Your task to perform on an android device: Play the last video I watched on Youtube Image 0: 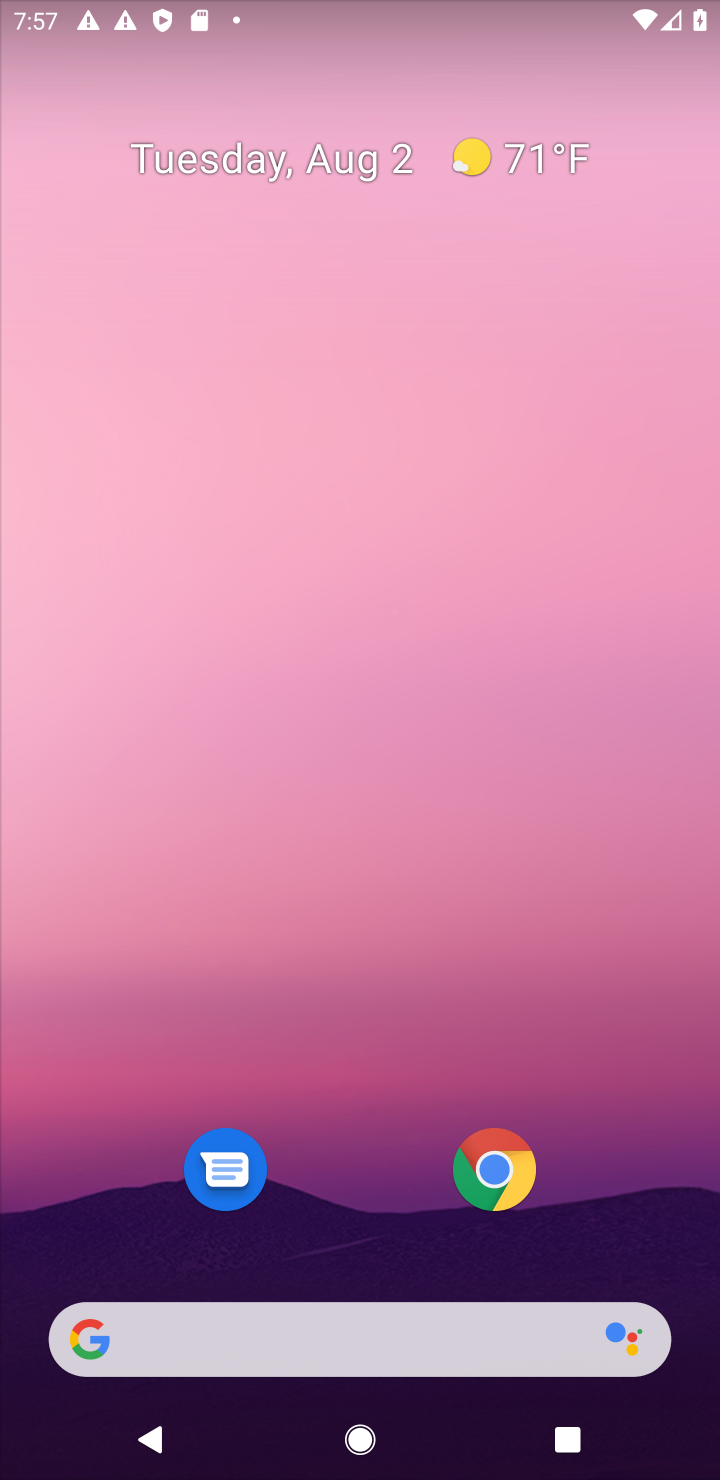
Step 0: drag from (333, 1122) to (414, 167)
Your task to perform on an android device: Play the last video I watched on Youtube Image 1: 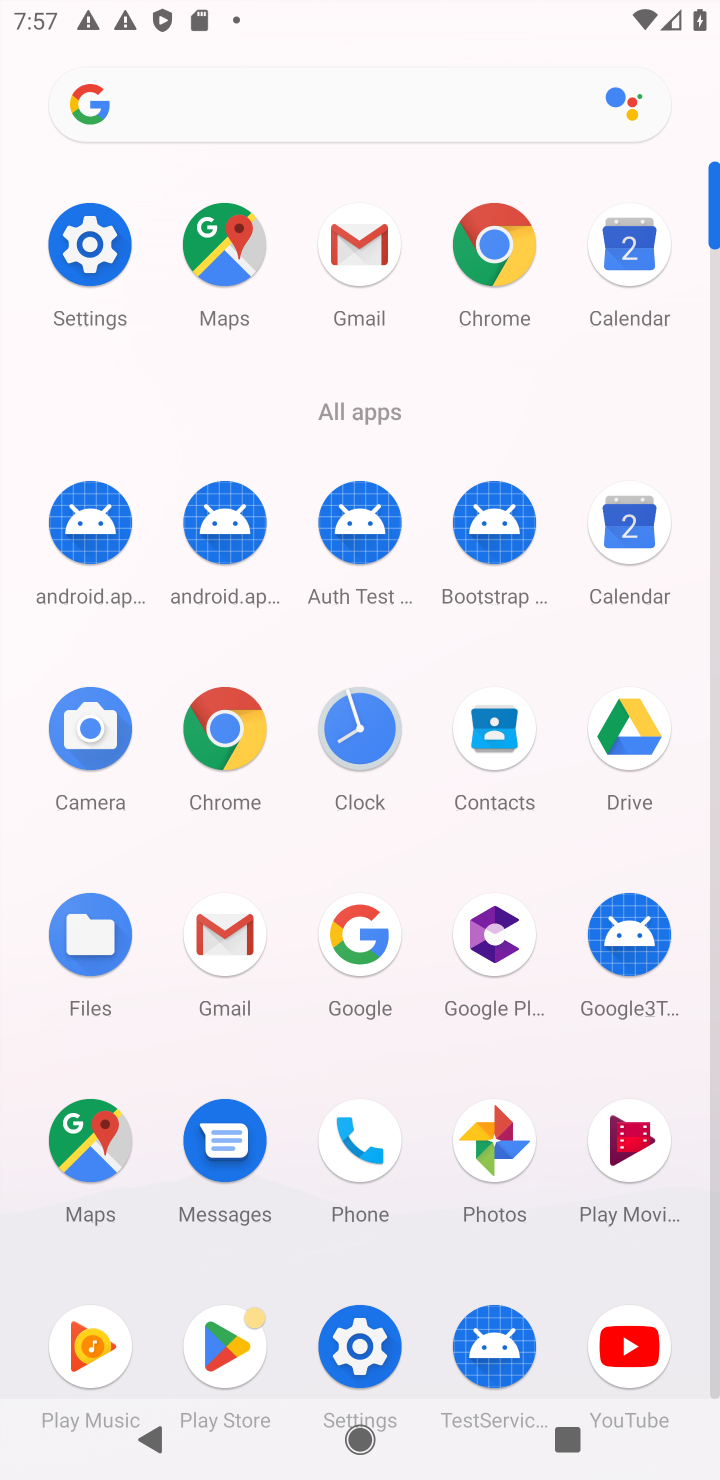
Step 1: click (630, 1344)
Your task to perform on an android device: Play the last video I watched on Youtube Image 2: 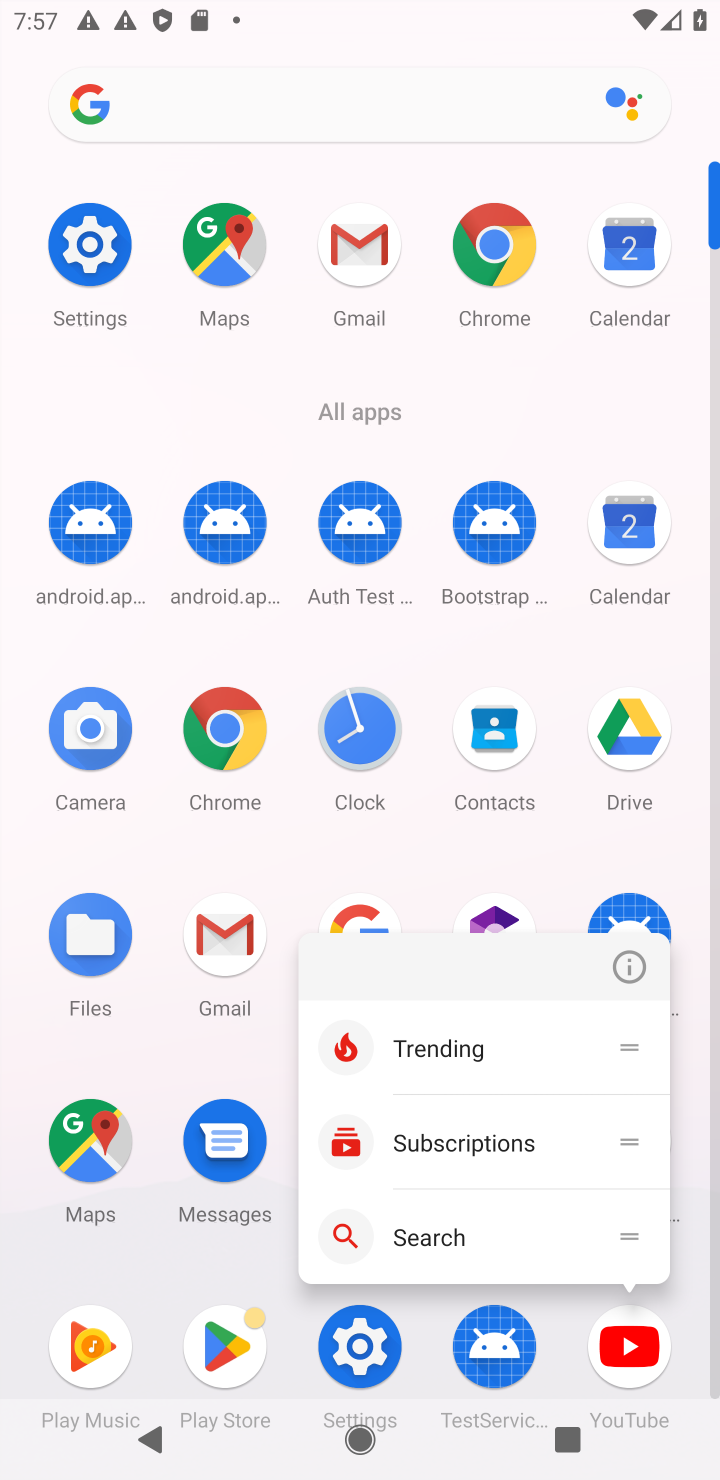
Step 2: click (630, 1344)
Your task to perform on an android device: Play the last video I watched on Youtube Image 3: 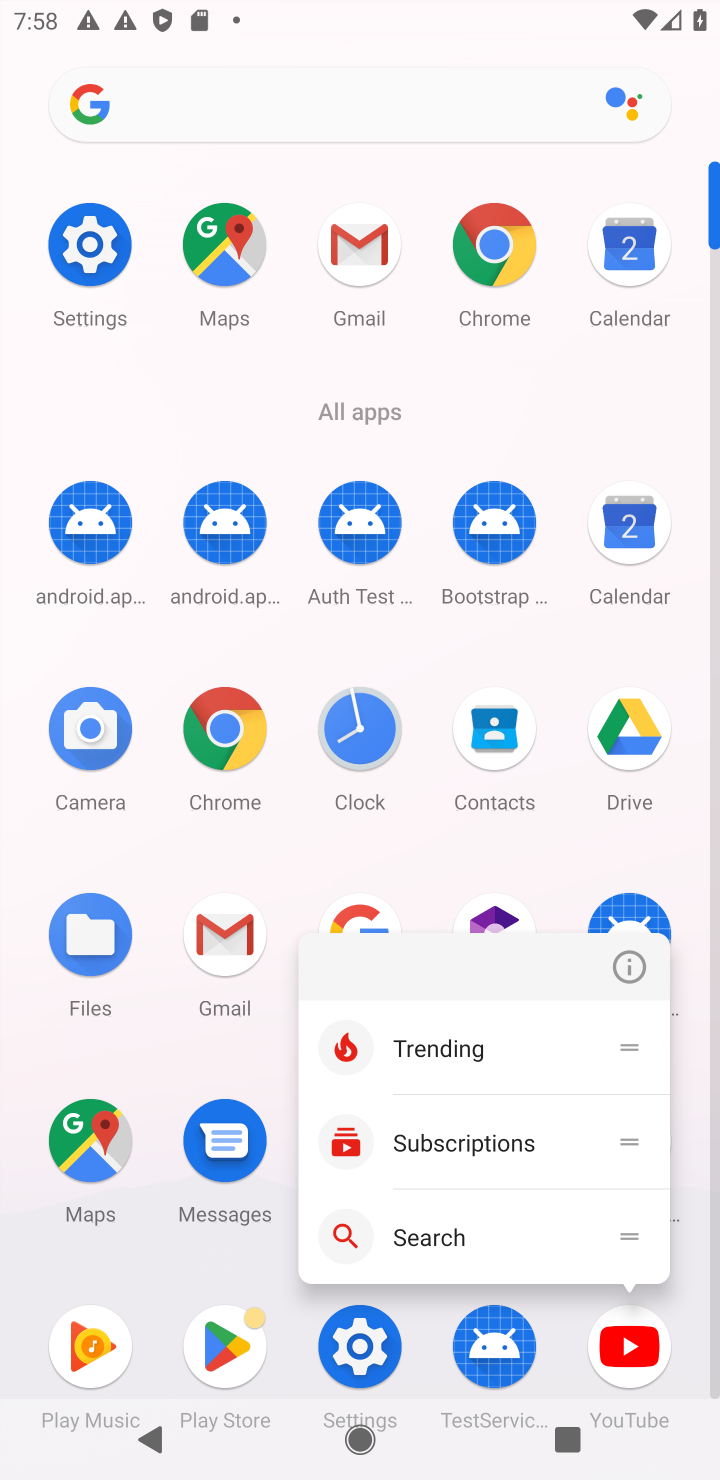
Step 3: click (633, 1347)
Your task to perform on an android device: Play the last video I watched on Youtube Image 4: 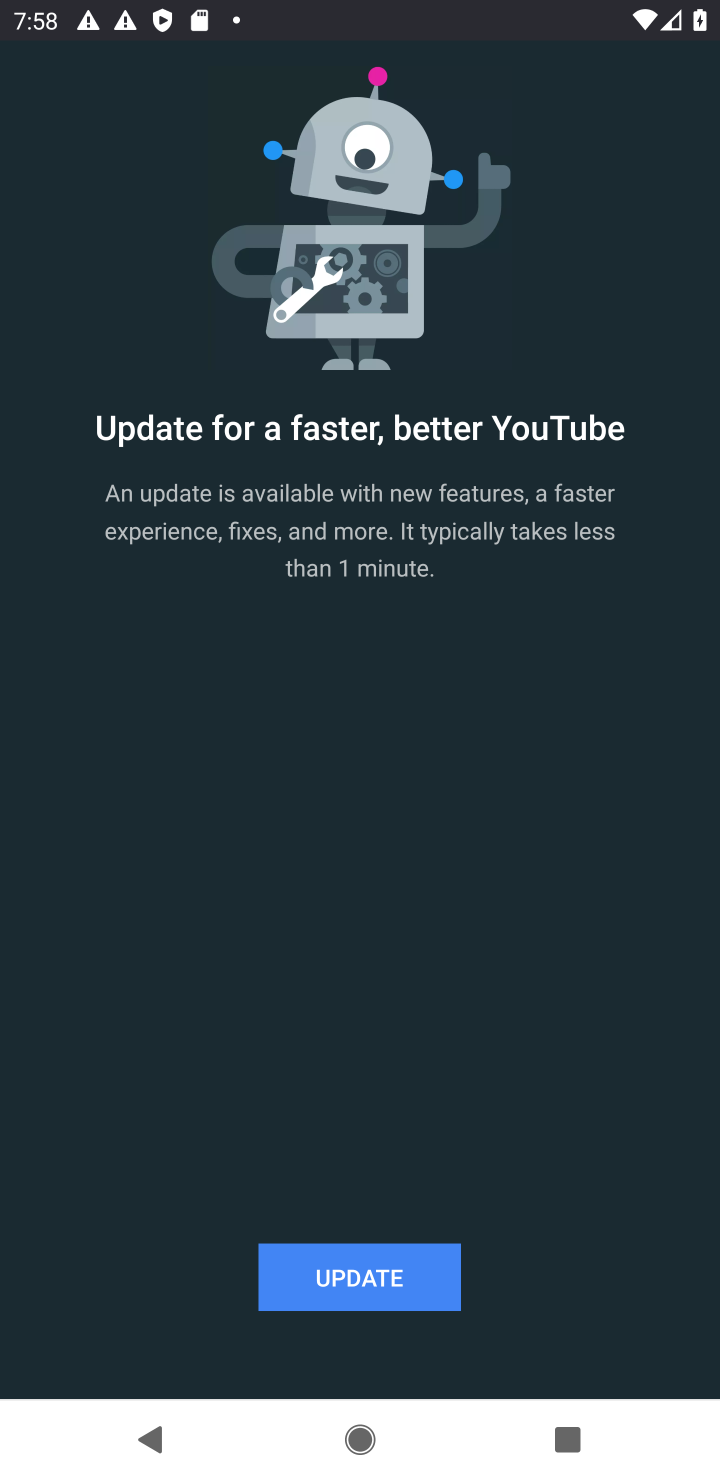
Step 4: click (444, 1274)
Your task to perform on an android device: Play the last video I watched on Youtube Image 5: 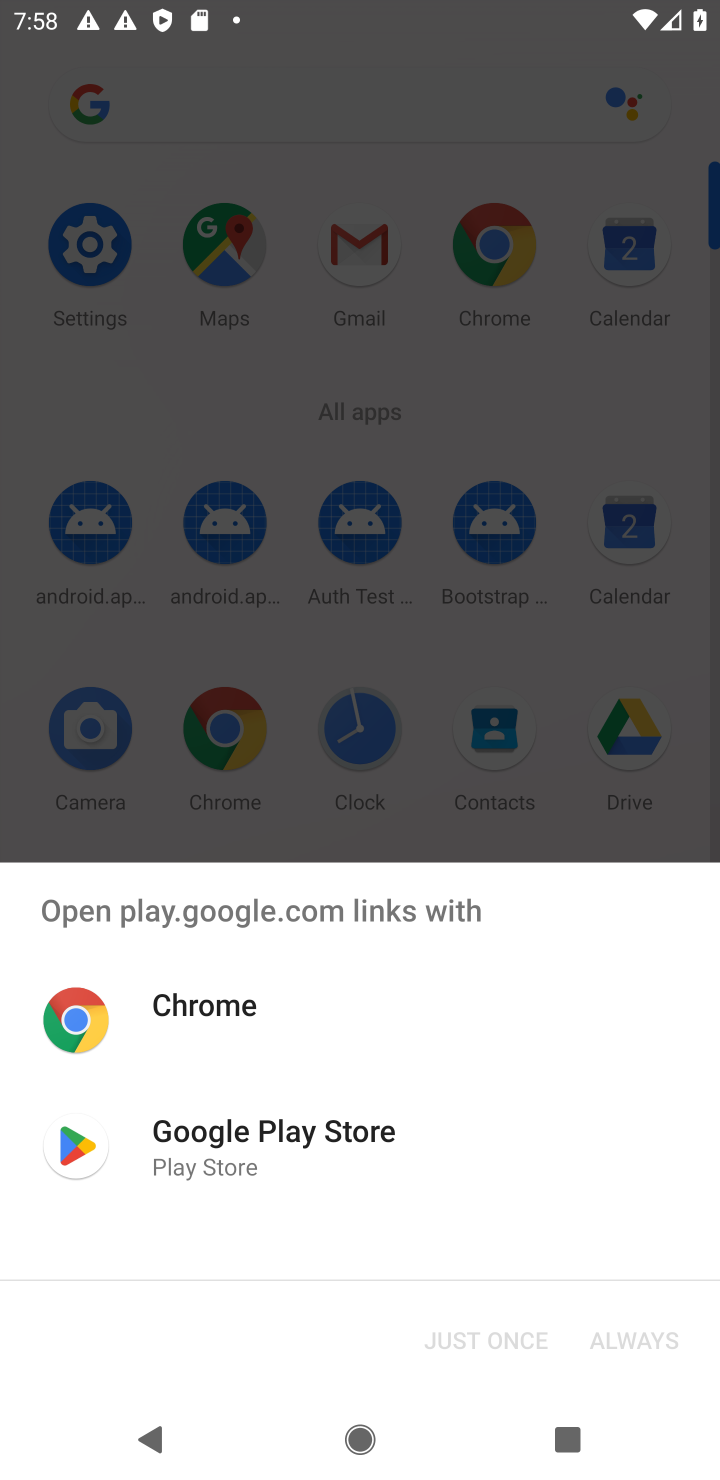
Step 5: click (318, 1130)
Your task to perform on an android device: Play the last video I watched on Youtube Image 6: 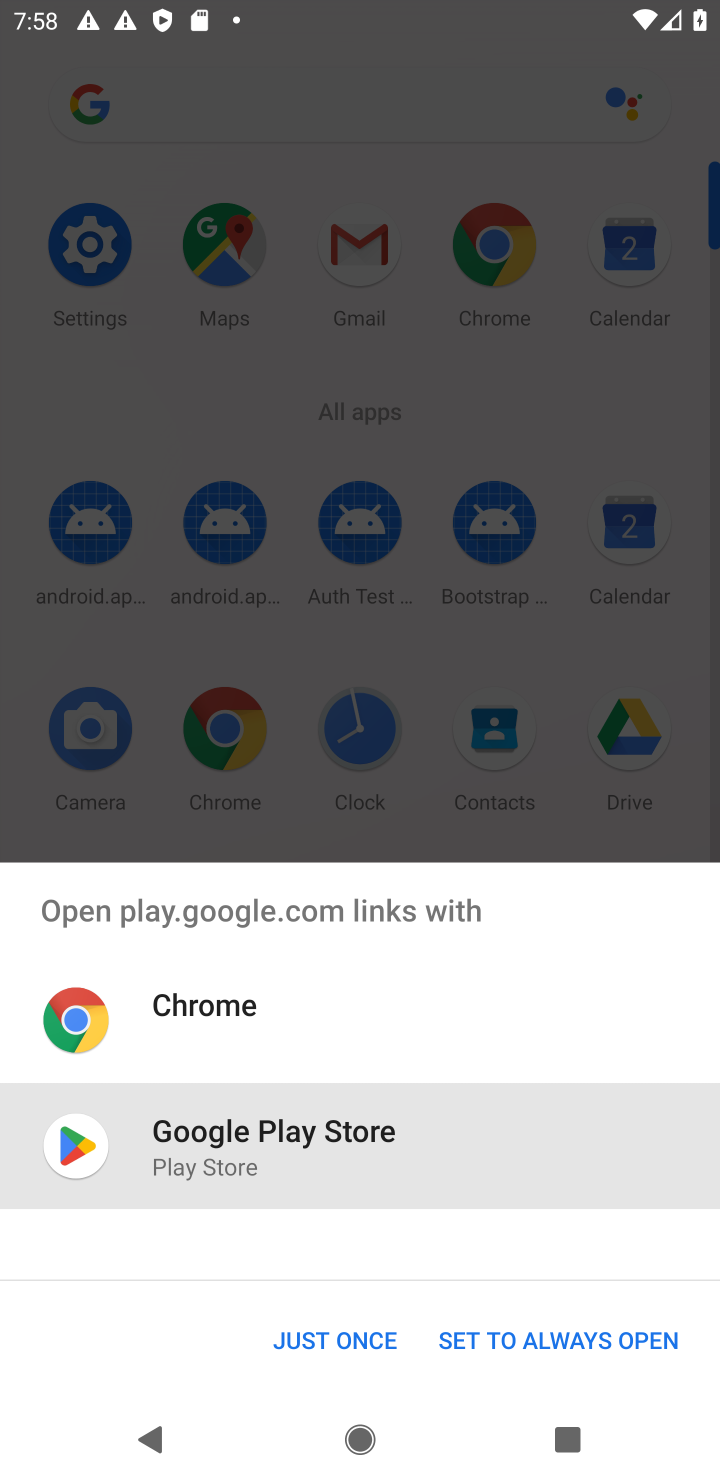
Step 6: click (348, 1335)
Your task to perform on an android device: Play the last video I watched on Youtube Image 7: 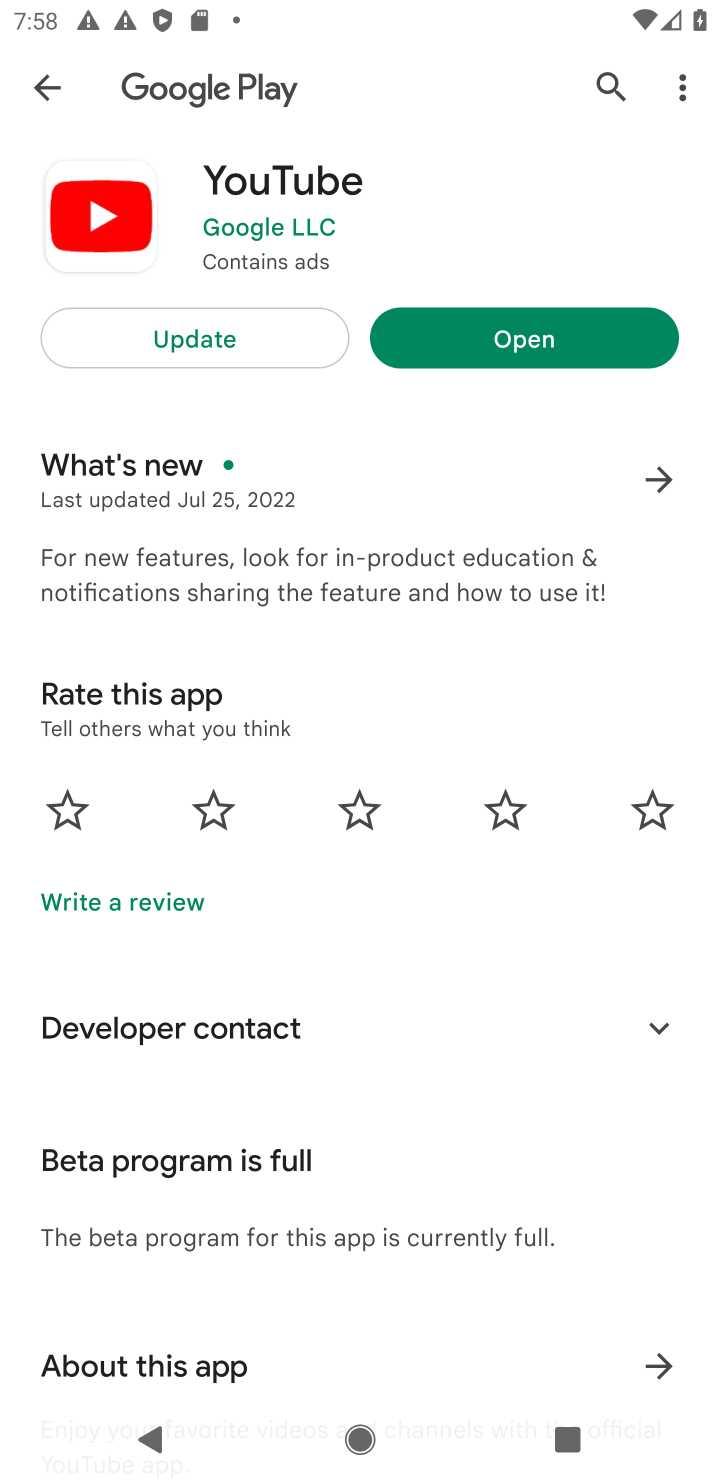
Step 7: click (632, 330)
Your task to perform on an android device: Play the last video I watched on Youtube Image 8: 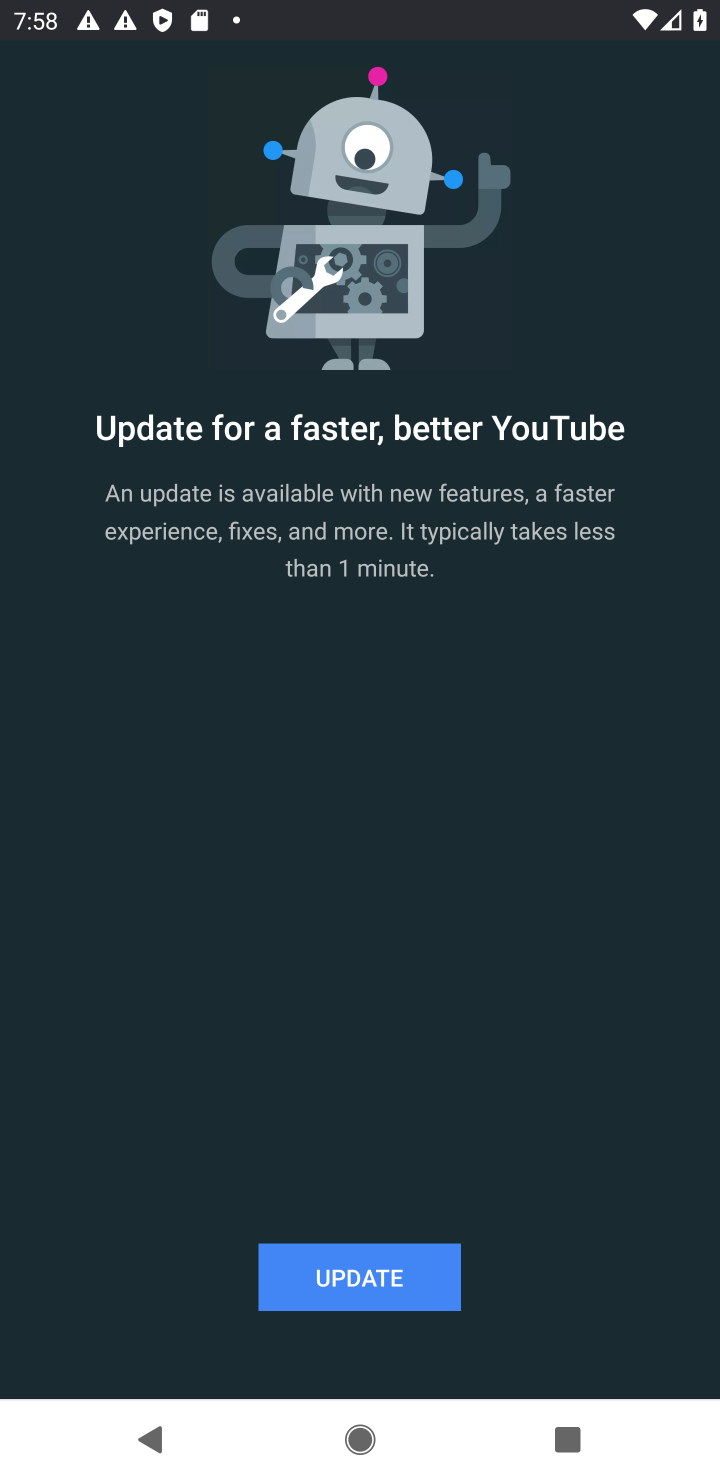
Step 8: click (434, 1263)
Your task to perform on an android device: Play the last video I watched on Youtube Image 9: 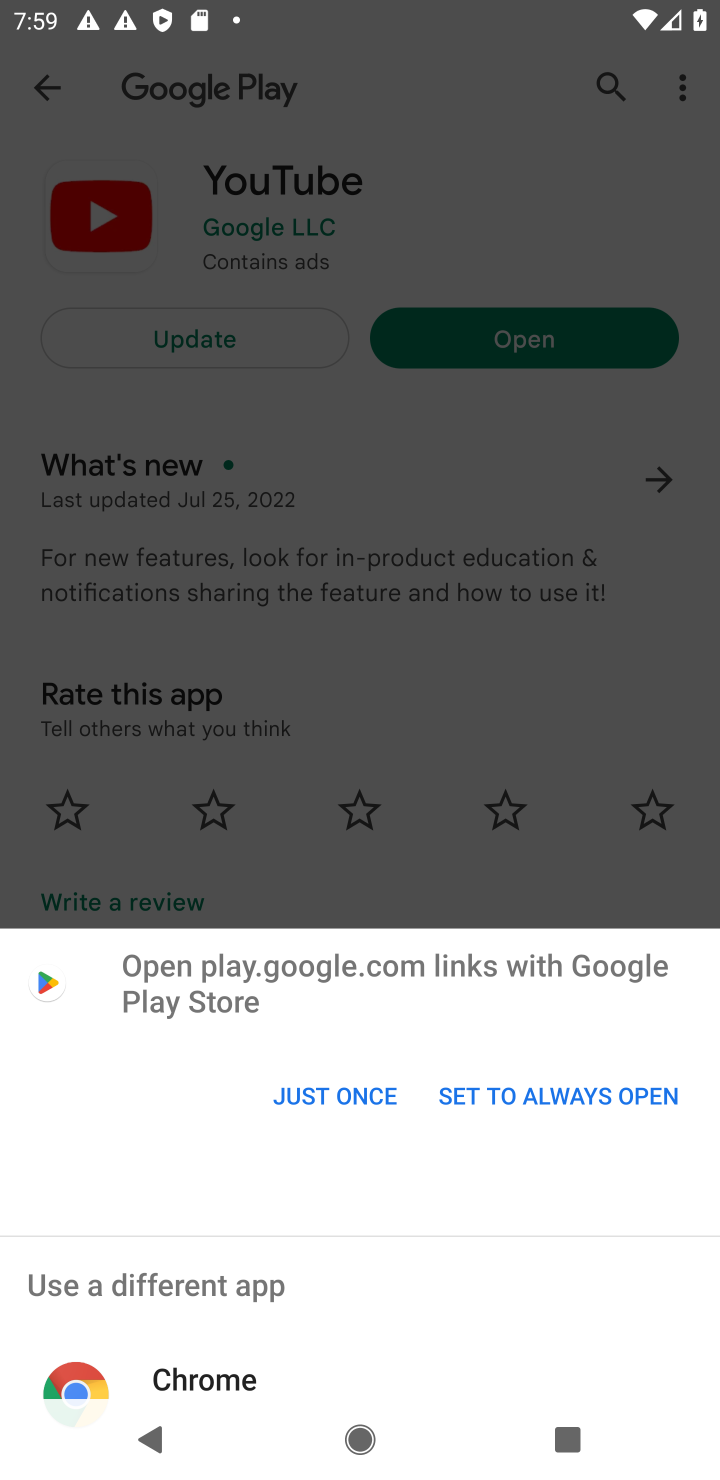
Step 9: click (329, 859)
Your task to perform on an android device: Play the last video I watched on Youtube Image 10: 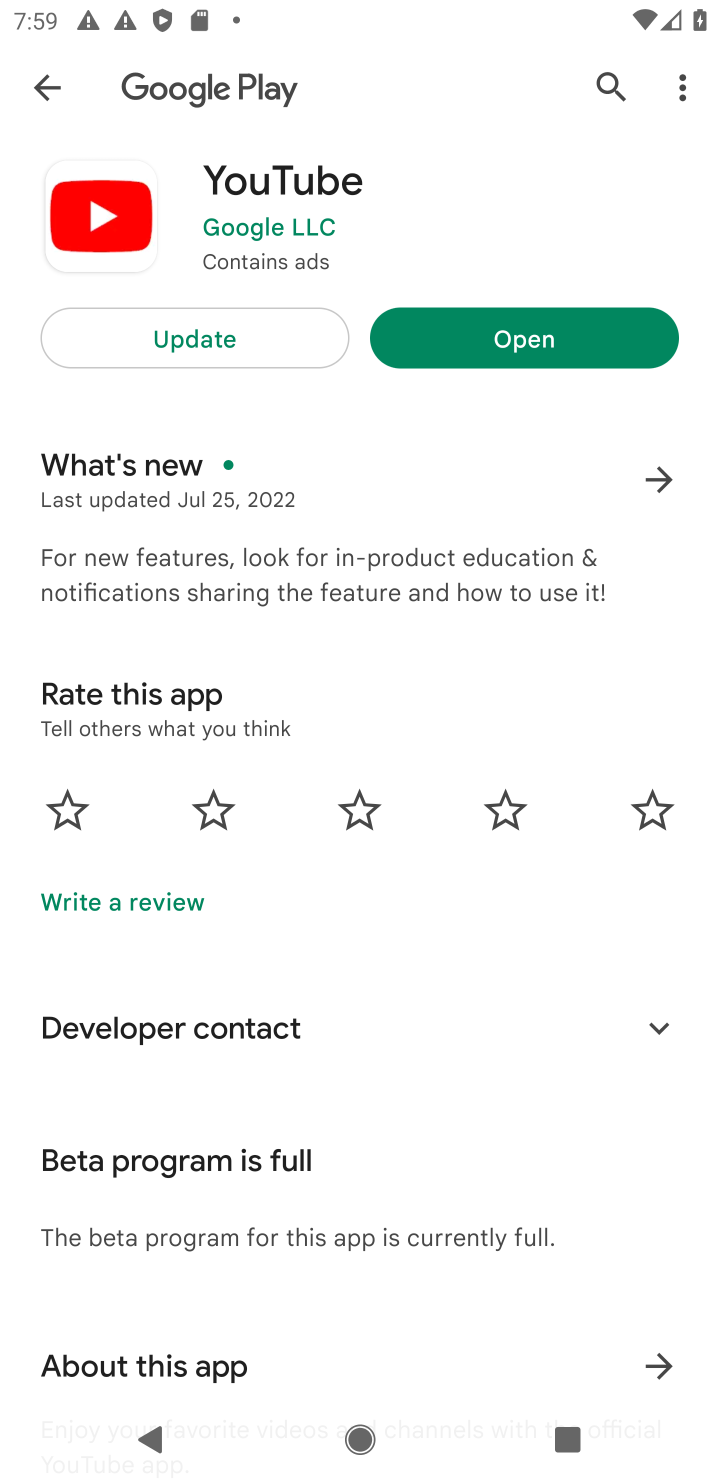
Step 10: click (277, 349)
Your task to perform on an android device: Play the last video I watched on Youtube Image 11: 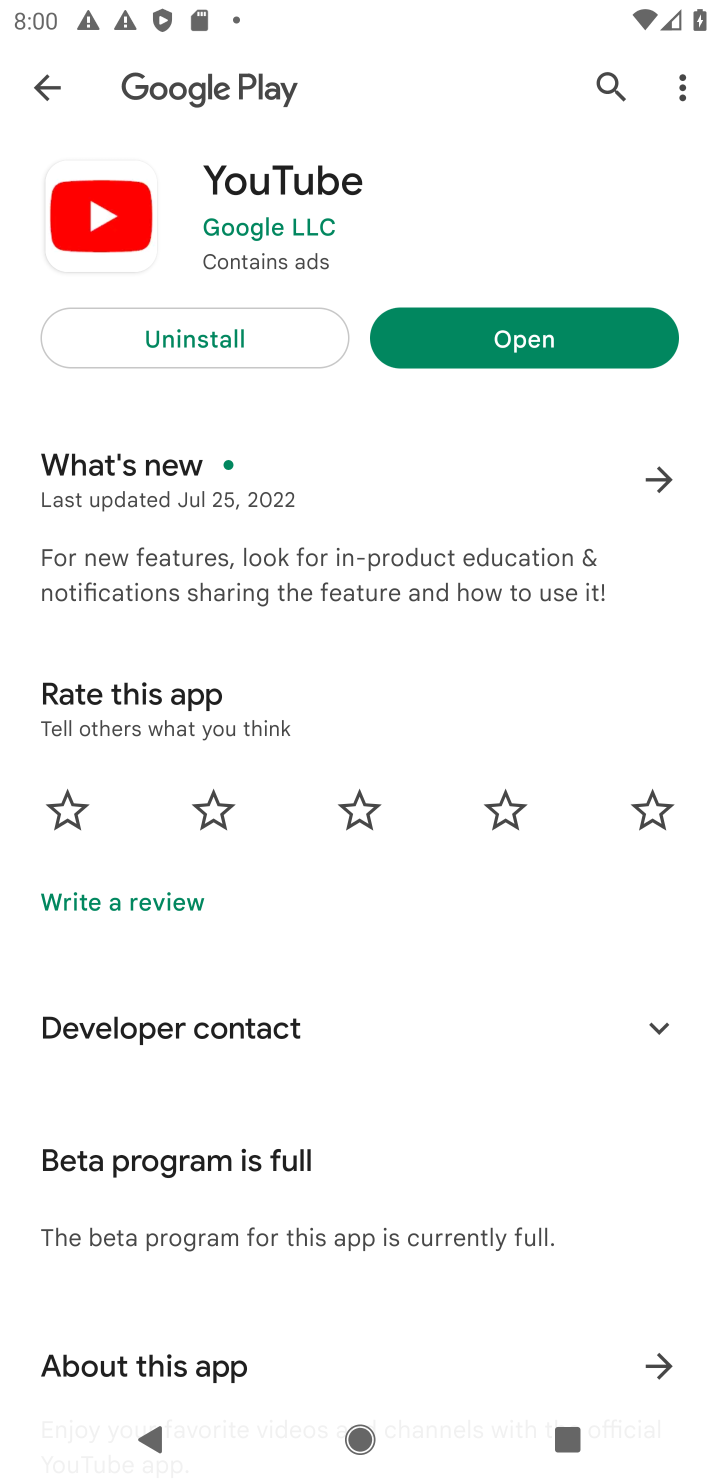
Step 11: click (641, 337)
Your task to perform on an android device: Play the last video I watched on Youtube Image 12: 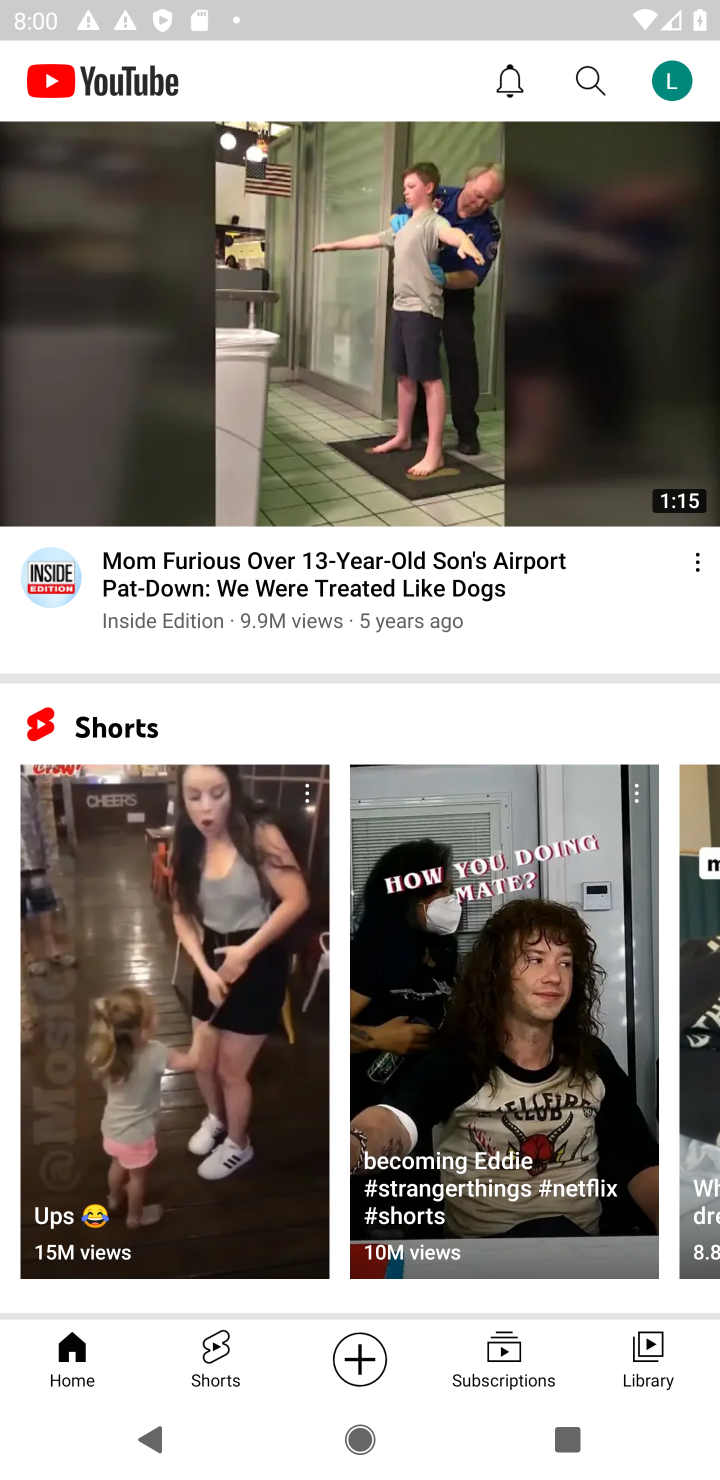
Step 12: click (662, 1352)
Your task to perform on an android device: Play the last video I watched on Youtube Image 13: 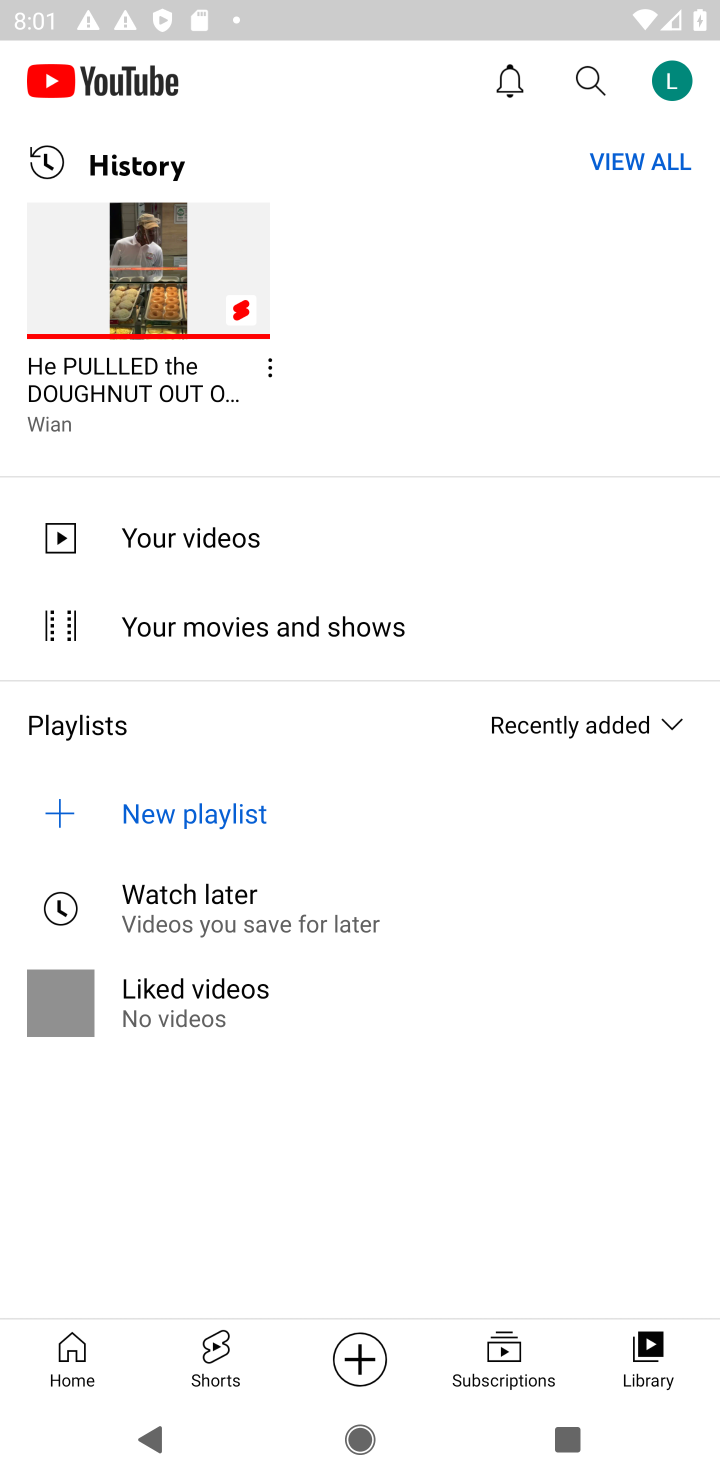
Step 13: click (124, 286)
Your task to perform on an android device: Play the last video I watched on Youtube Image 14: 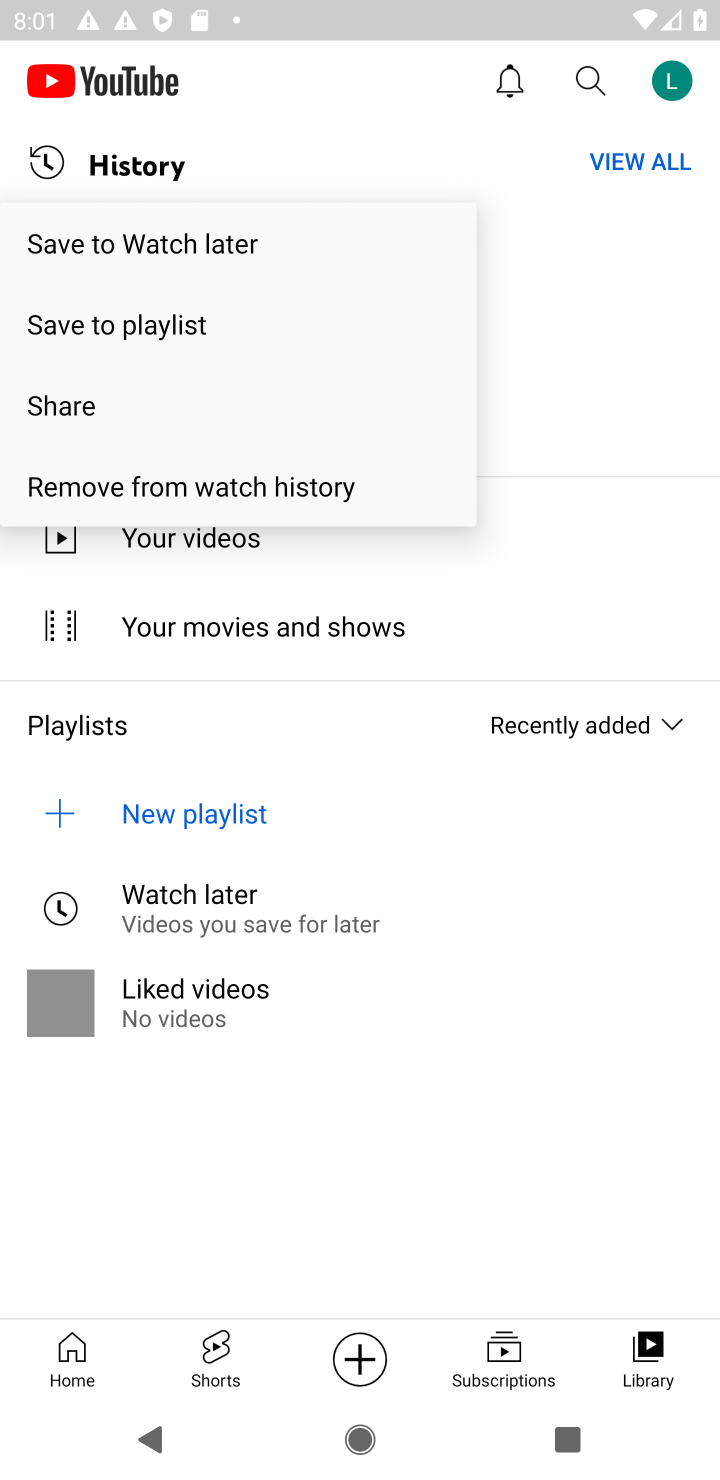
Step 14: click (574, 389)
Your task to perform on an android device: Play the last video I watched on Youtube Image 15: 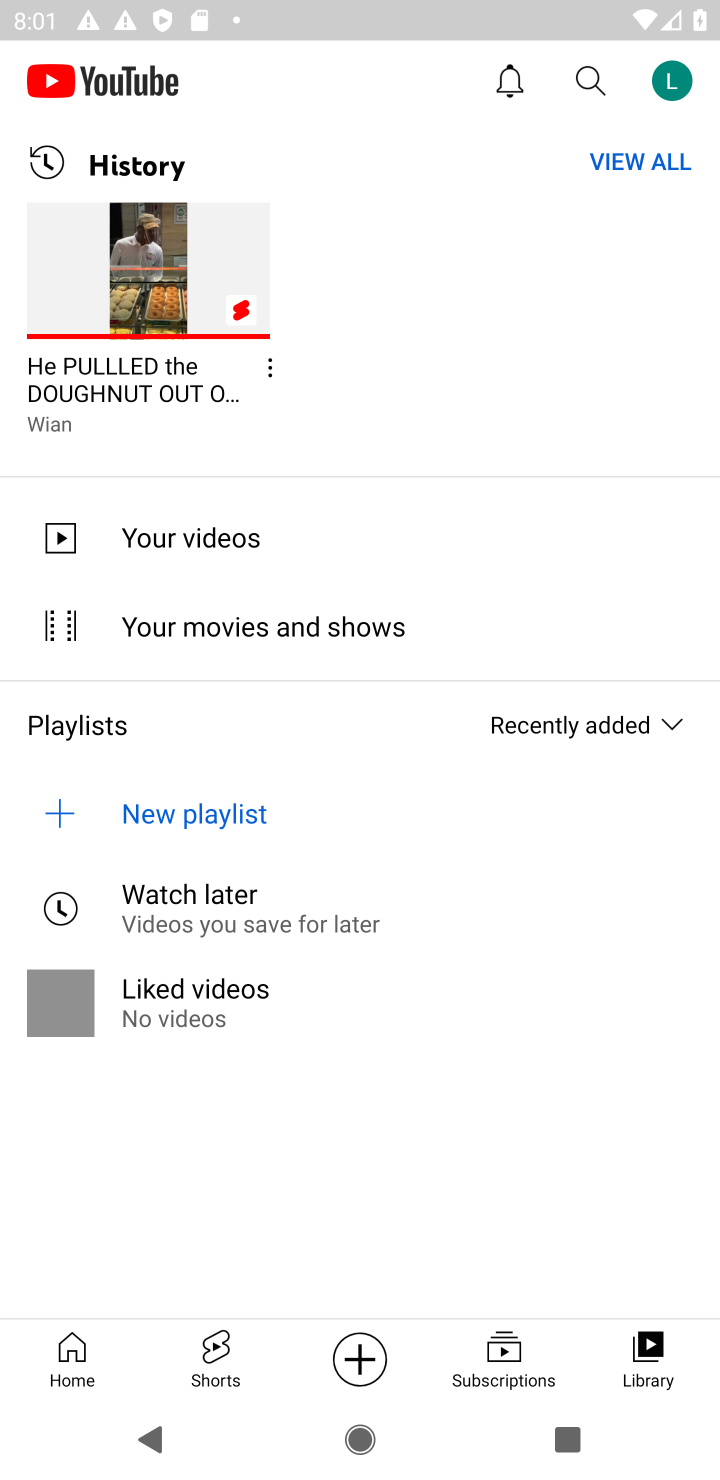
Step 15: click (165, 282)
Your task to perform on an android device: Play the last video I watched on Youtube Image 16: 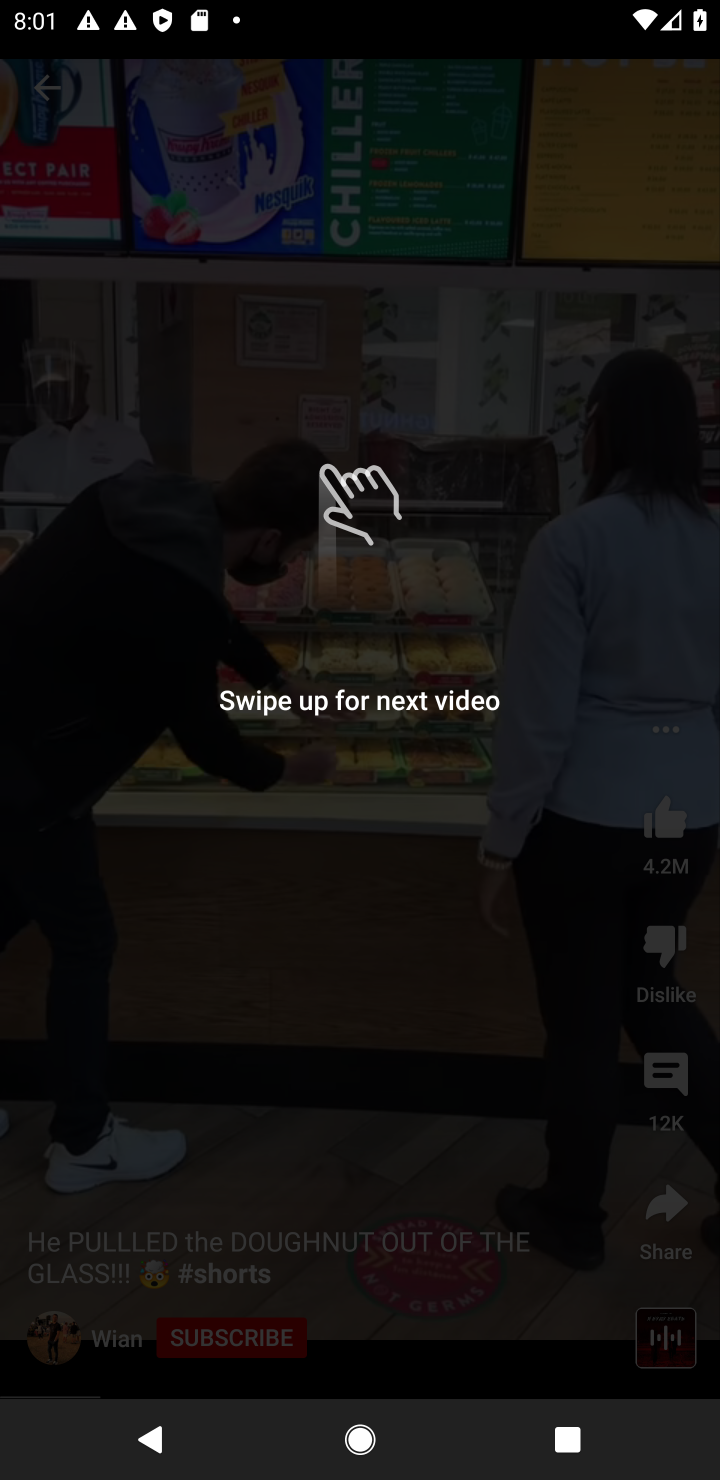
Step 16: task complete